Your task to perform on an android device: turn off location history Image 0: 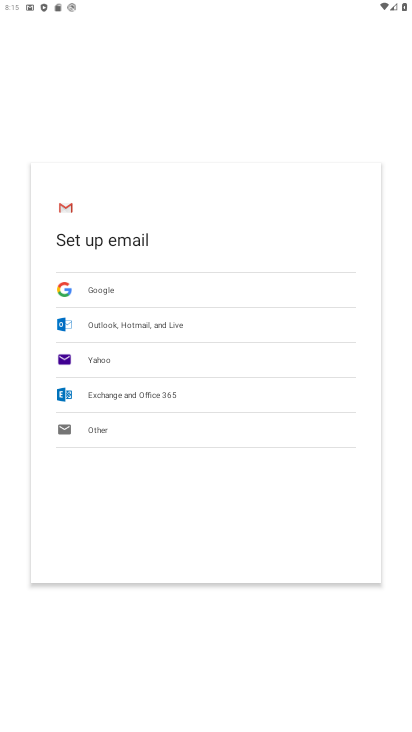
Step 0: press home button
Your task to perform on an android device: turn off location history Image 1: 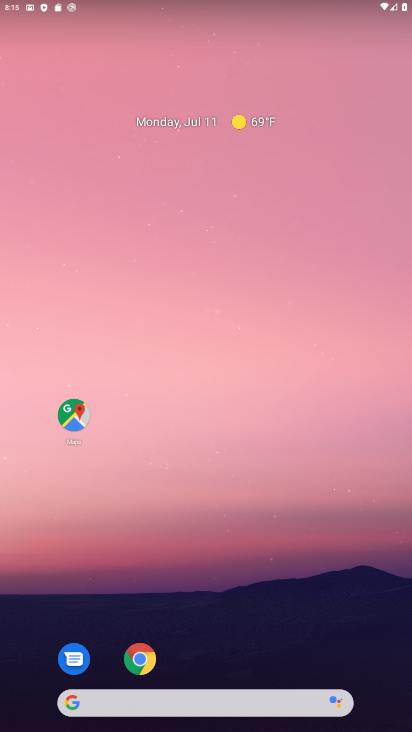
Step 1: drag from (183, 660) to (316, 13)
Your task to perform on an android device: turn off location history Image 2: 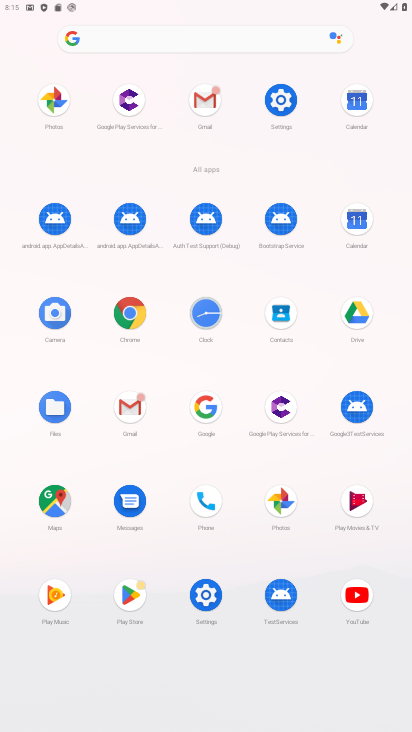
Step 2: click (207, 602)
Your task to perform on an android device: turn off location history Image 3: 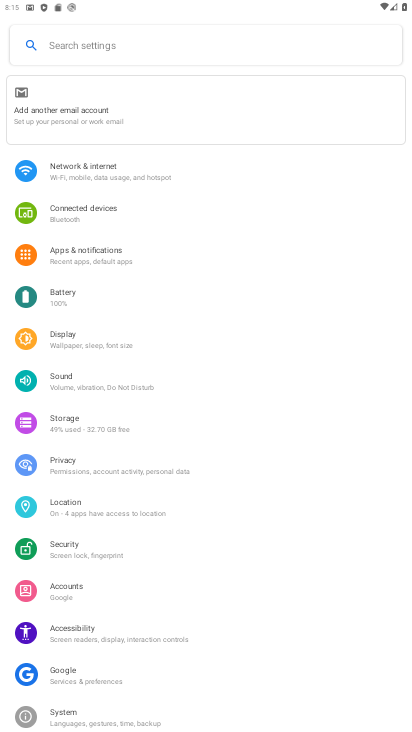
Step 3: click (100, 517)
Your task to perform on an android device: turn off location history Image 4: 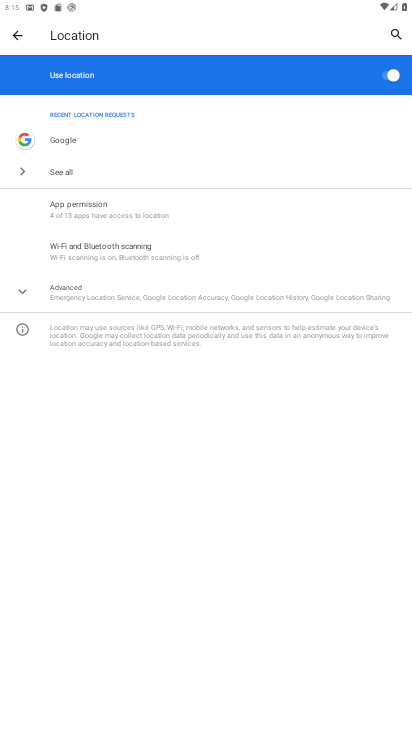
Step 4: click (130, 295)
Your task to perform on an android device: turn off location history Image 5: 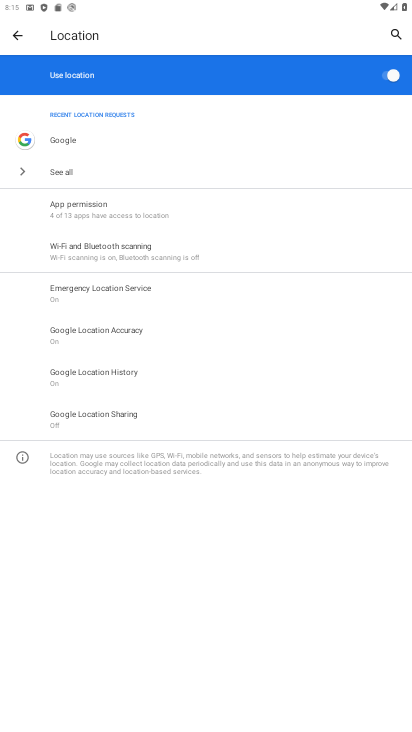
Step 5: click (146, 374)
Your task to perform on an android device: turn off location history Image 6: 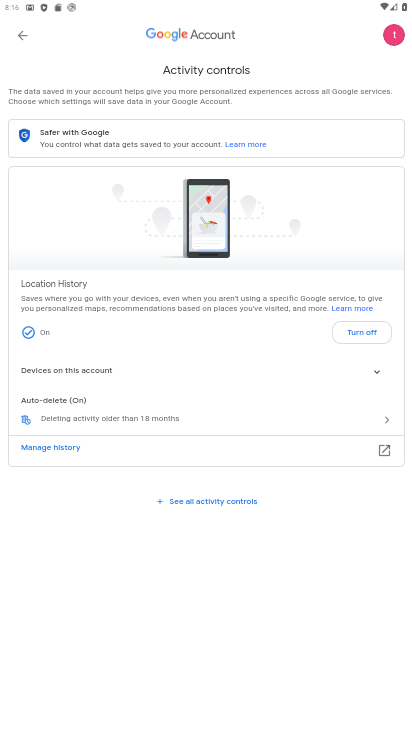
Step 6: click (353, 327)
Your task to perform on an android device: turn off location history Image 7: 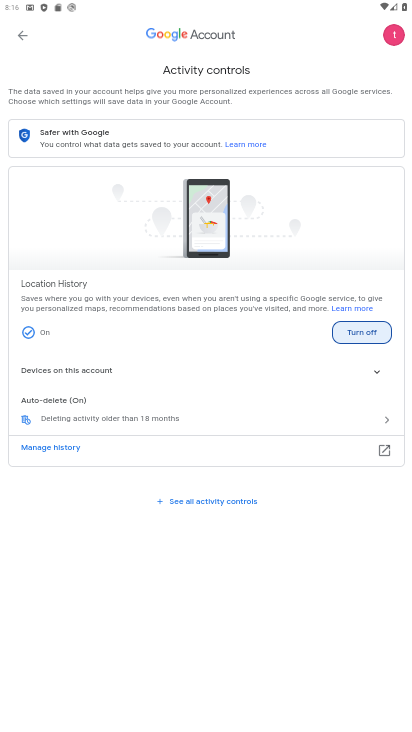
Step 7: click (368, 331)
Your task to perform on an android device: turn off location history Image 8: 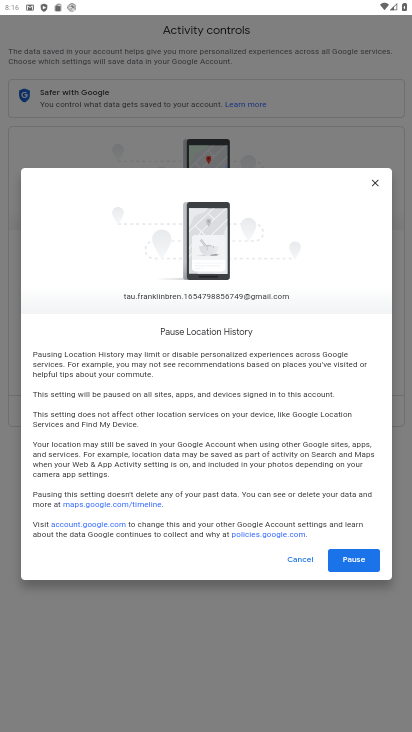
Step 8: click (352, 564)
Your task to perform on an android device: turn off location history Image 9: 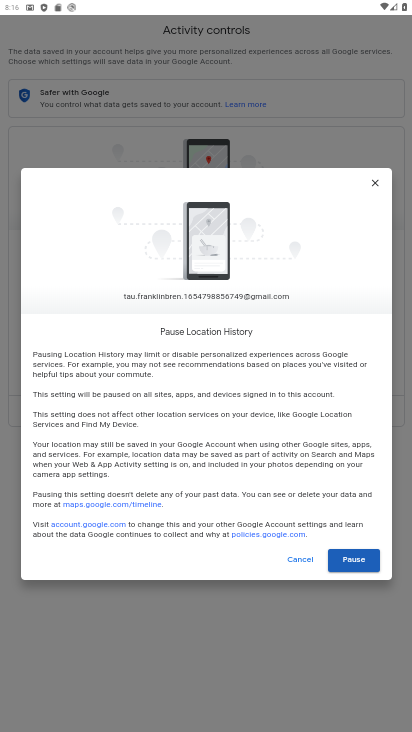
Step 9: click (352, 562)
Your task to perform on an android device: turn off location history Image 10: 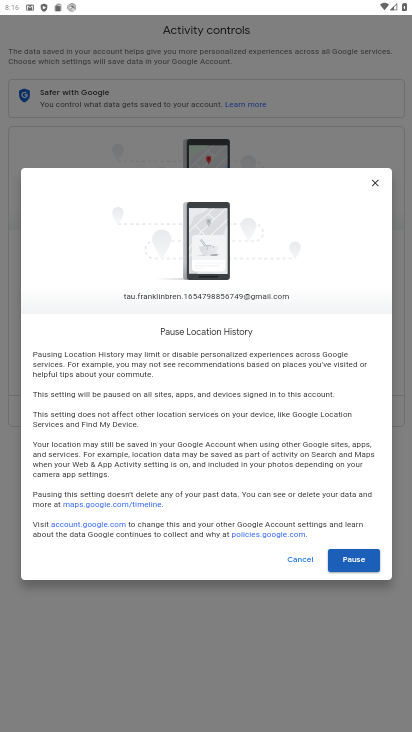
Step 10: click (353, 559)
Your task to perform on an android device: turn off location history Image 11: 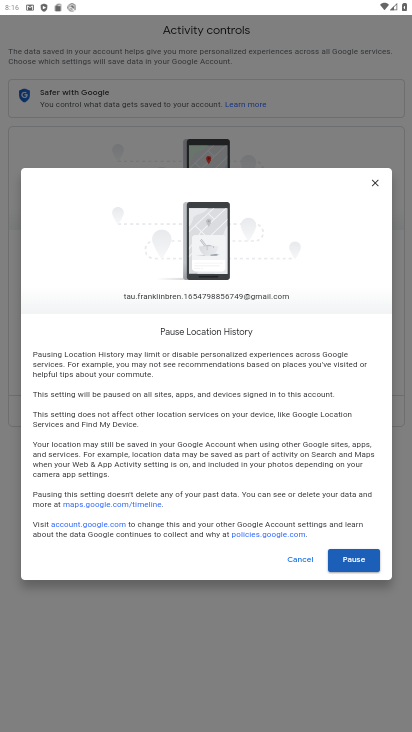
Step 11: click (347, 562)
Your task to perform on an android device: turn off location history Image 12: 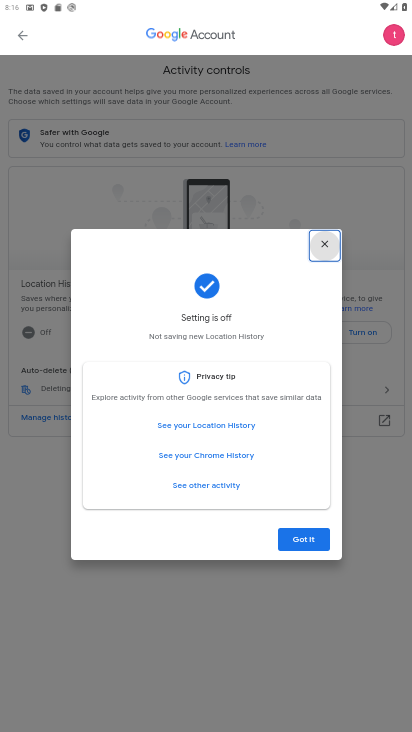
Step 12: click (311, 542)
Your task to perform on an android device: turn off location history Image 13: 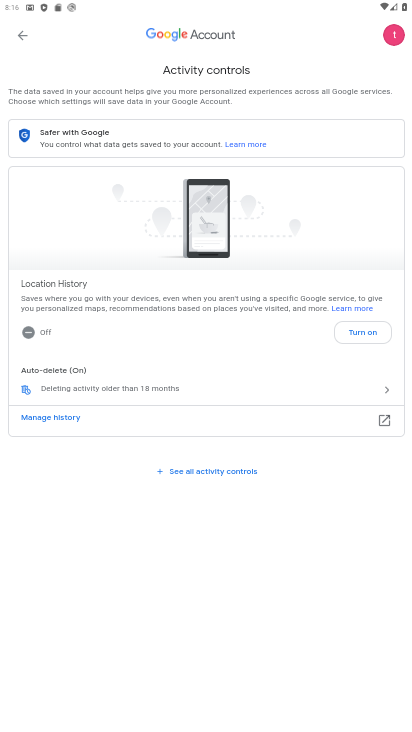
Step 13: task complete